Your task to perform on an android device: Open Google Maps Image 0: 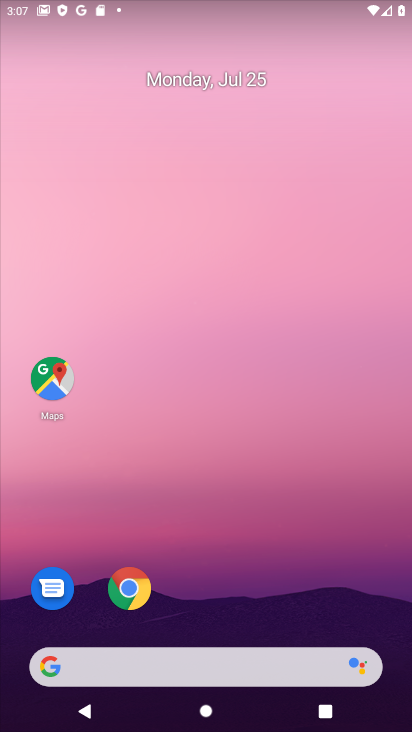
Step 0: click (47, 383)
Your task to perform on an android device: Open Google Maps Image 1: 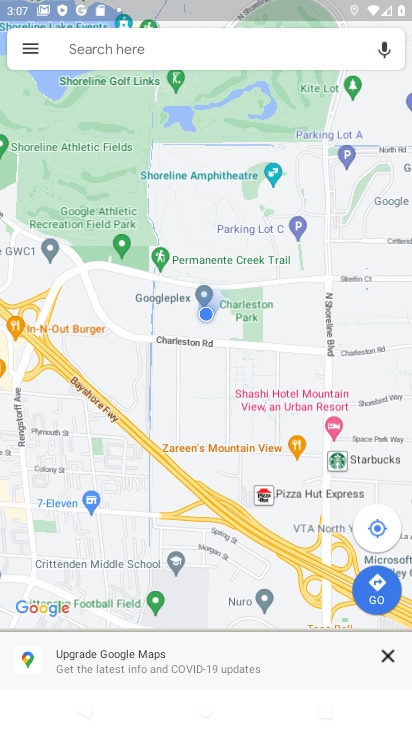
Step 1: task complete